Your task to perform on an android device: stop showing notifications on the lock screen Image 0: 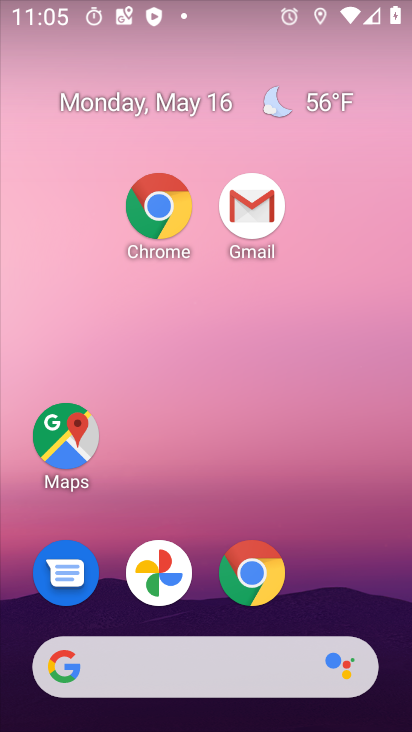
Step 0: click (176, 81)
Your task to perform on an android device: stop showing notifications on the lock screen Image 1: 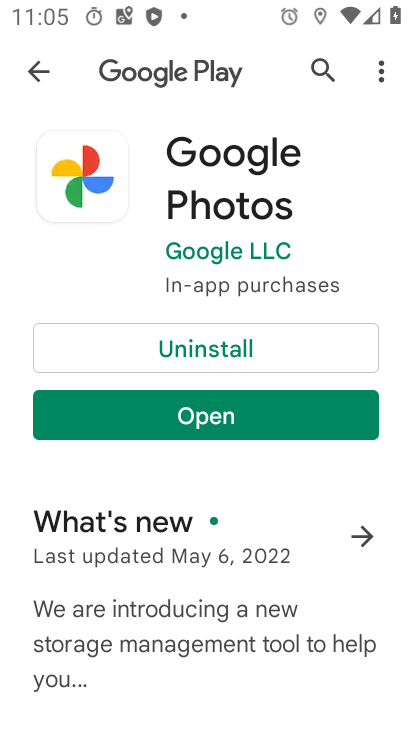
Step 1: drag from (323, 534) to (227, 156)
Your task to perform on an android device: stop showing notifications on the lock screen Image 2: 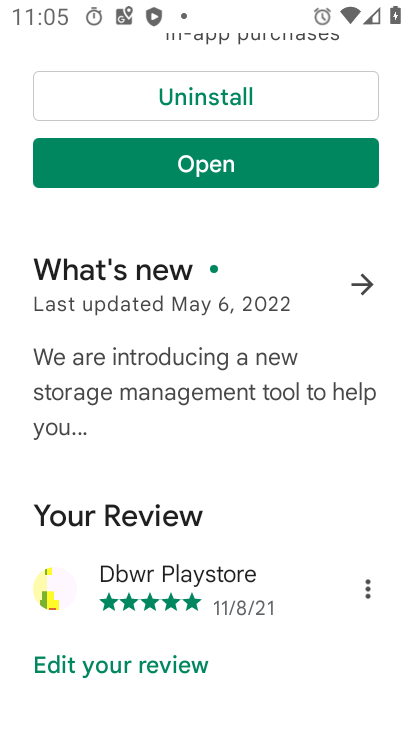
Step 2: press back button
Your task to perform on an android device: stop showing notifications on the lock screen Image 3: 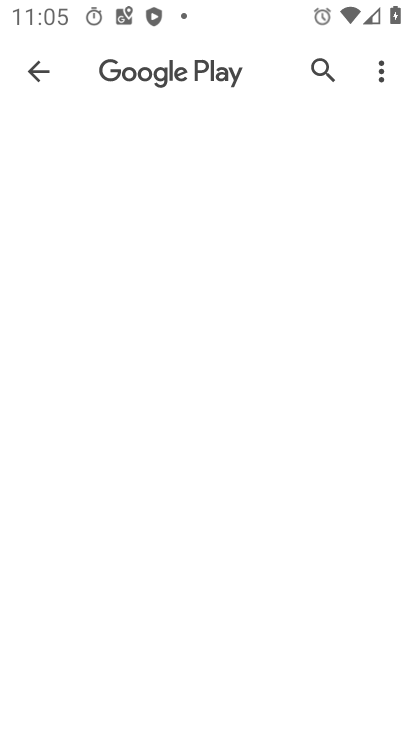
Step 3: press back button
Your task to perform on an android device: stop showing notifications on the lock screen Image 4: 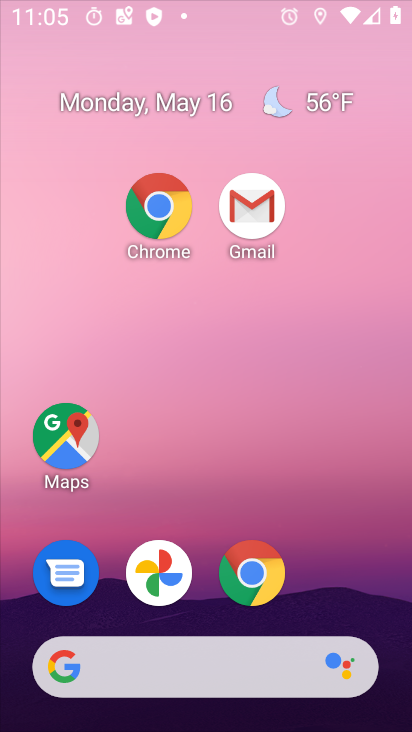
Step 4: press back button
Your task to perform on an android device: stop showing notifications on the lock screen Image 5: 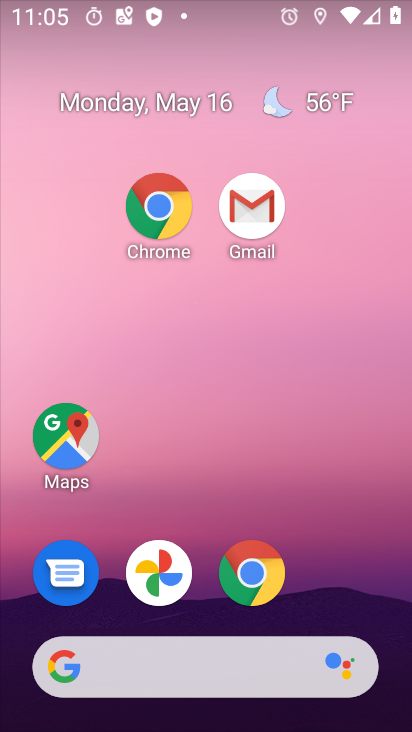
Step 5: drag from (327, 582) to (155, 143)
Your task to perform on an android device: stop showing notifications on the lock screen Image 6: 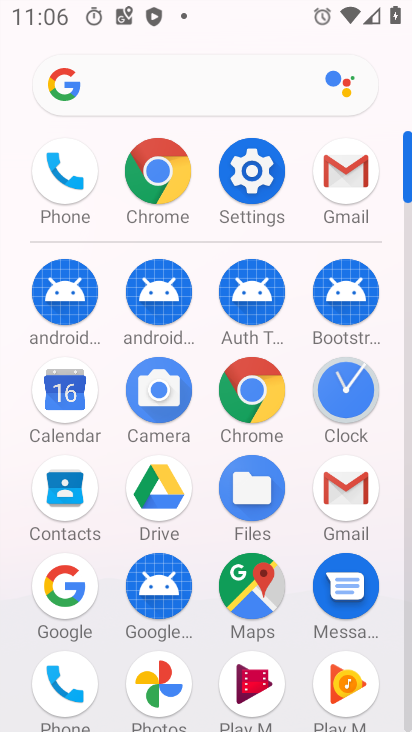
Step 6: click (254, 172)
Your task to perform on an android device: stop showing notifications on the lock screen Image 7: 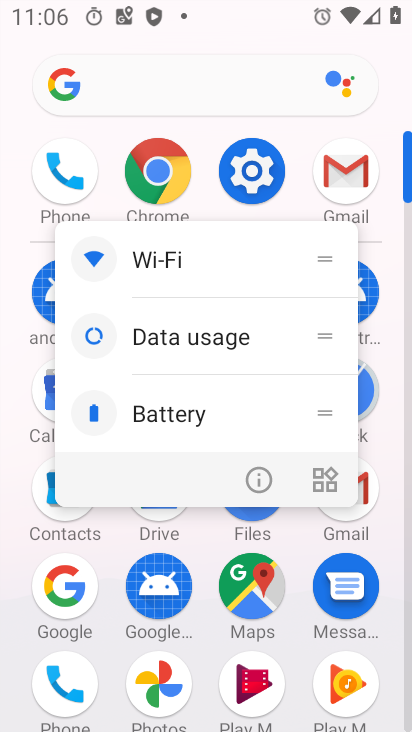
Step 7: click (259, 165)
Your task to perform on an android device: stop showing notifications on the lock screen Image 8: 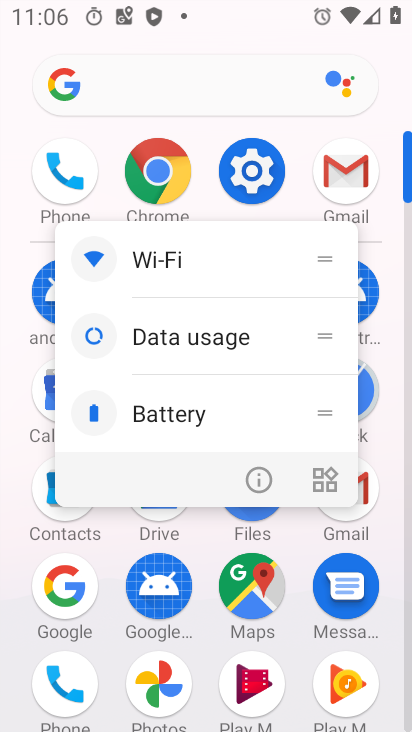
Step 8: click (248, 175)
Your task to perform on an android device: stop showing notifications on the lock screen Image 9: 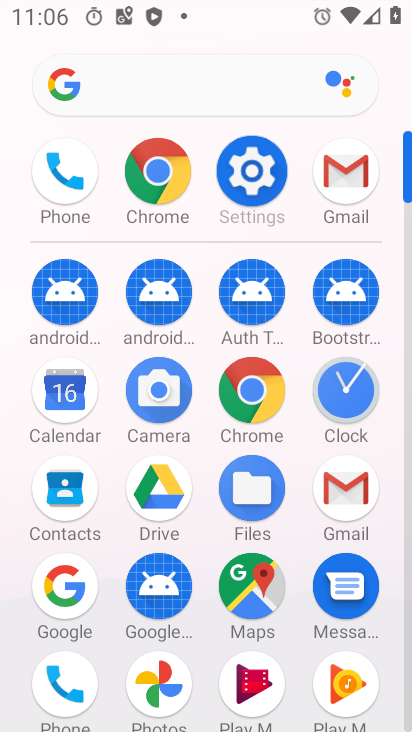
Step 9: click (249, 176)
Your task to perform on an android device: stop showing notifications on the lock screen Image 10: 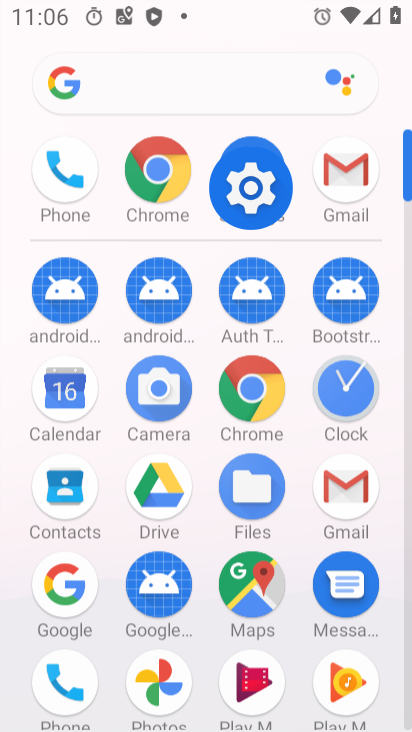
Step 10: click (249, 176)
Your task to perform on an android device: stop showing notifications on the lock screen Image 11: 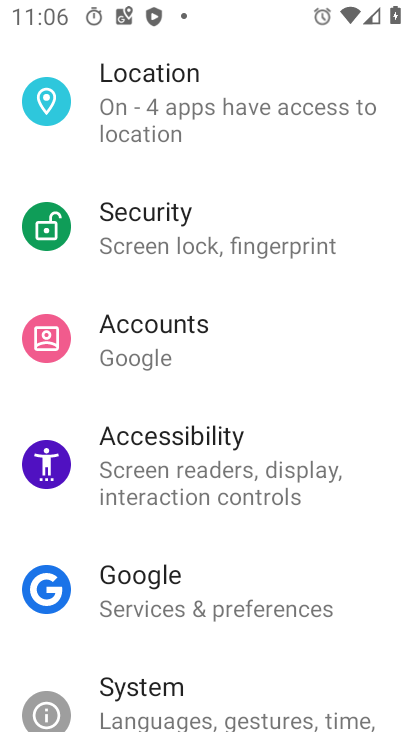
Step 11: drag from (150, 201) to (232, 463)
Your task to perform on an android device: stop showing notifications on the lock screen Image 12: 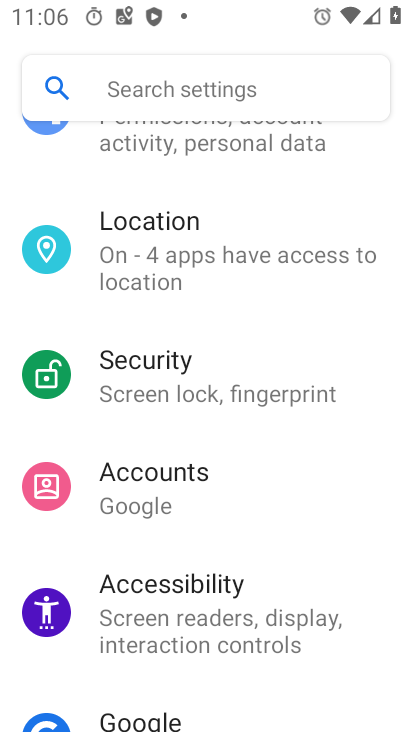
Step 12: drag from (173, 304) to (271, 729)
Your task to perform on an android device: stop showing notifications on the lock screen Image 13: 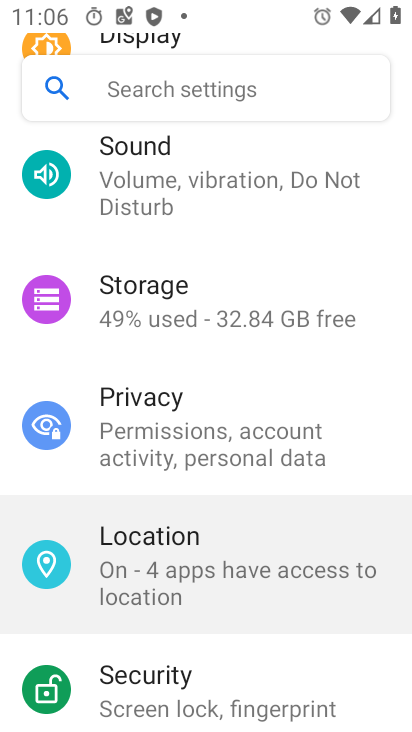
Step 13: drag from (182, 335) to (204, 708)
Your task to perform on an android device: stop showing notifications on the lock screen Image 14: 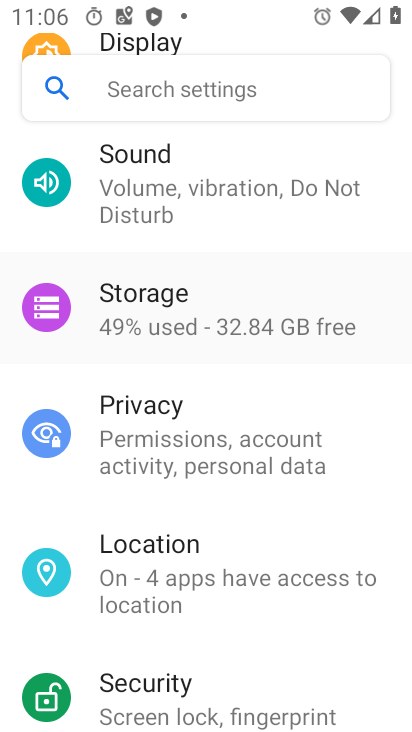
Step 14: drag from (167, 435) to (236, 706)
Your task to perform on an android device: stop showing notifications on the lock screen Image 15: 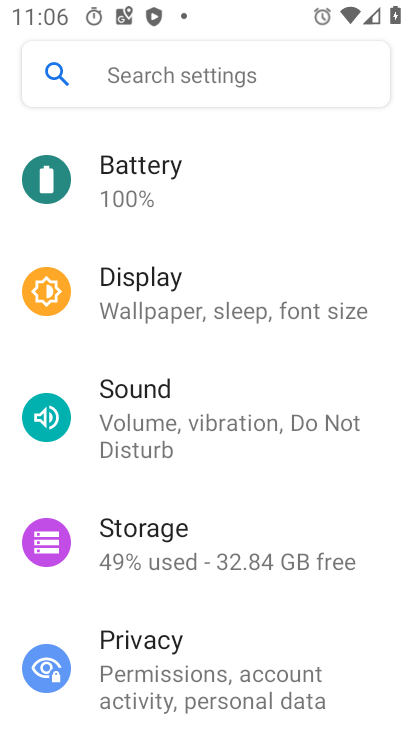
Step 15: drag from (172, 545) to (139, 142)
Your task to perform on an android device: stop showing notifications on the lock screen Image 16: 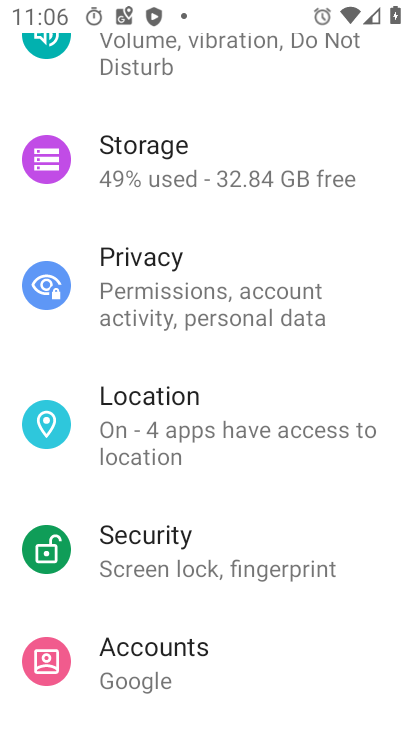
Step 16: drag from (224, 519) to (142, 12)
Your task to perform on an android device: stop showing notifications on the lock screen Image 17: 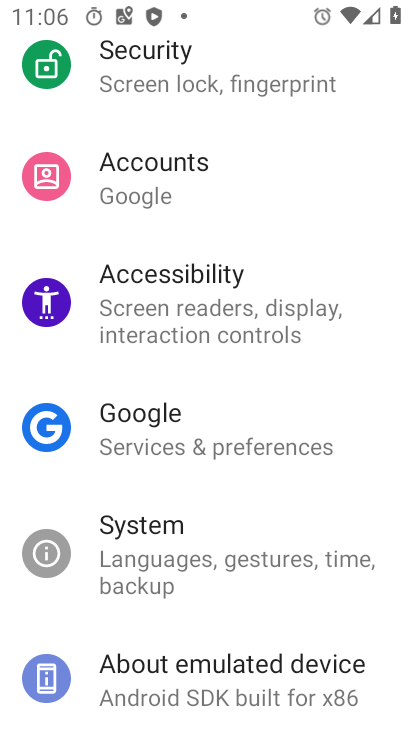
Step 17: drag from (175, 426) to (183, 26)
Your task to perform on an android device: stop showing notifications on the lock screen Image 18: 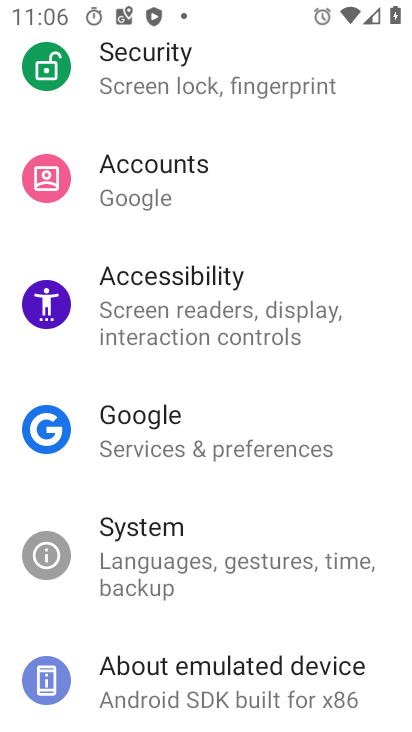
Step 18: drag from (148, 248) to (279, 691)
Your task to perform on an android device: stop showing notifications on the lock screen Image 19: 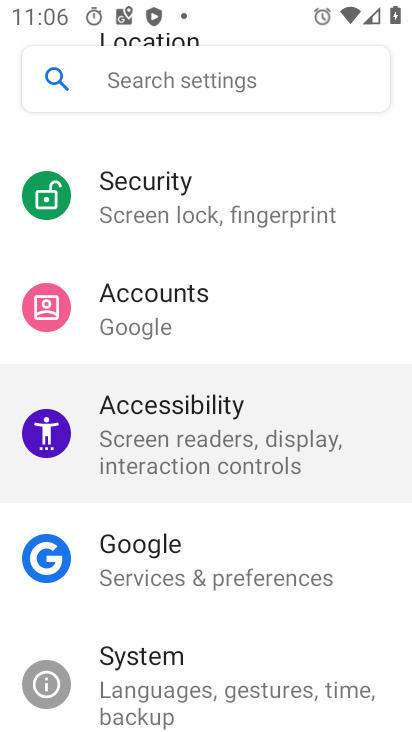
Step 19: drag from (116, 195) to (174, 442)
Your task to perform on an android device: stop showing notifications on the lock screen Image 20: 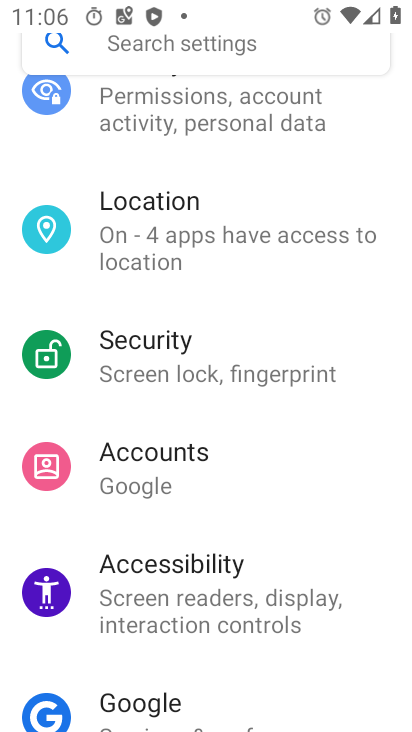
Step 20: drag from (154, 223) to (267, 663)
Your task to perform on an android device: stop showing notifications on the lock screen Image 21: 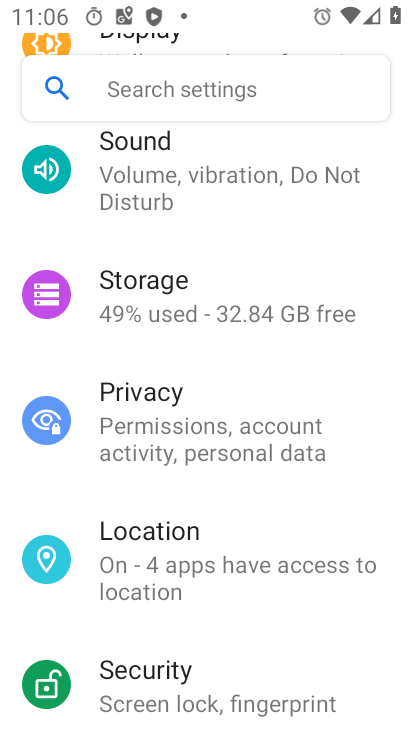
Step 21: drag from (135, 274) to (211, 517)
Your task to perform on an android device: stop showing notifications on the lock screen Image 22: 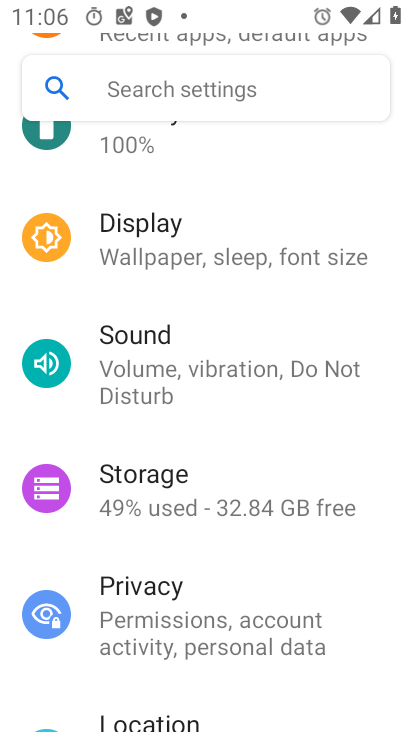
Step 22: drag from (145, 262) to (202, 589)
Your task to perform on an android device: stop showing notifications on the lock screen Image 23: 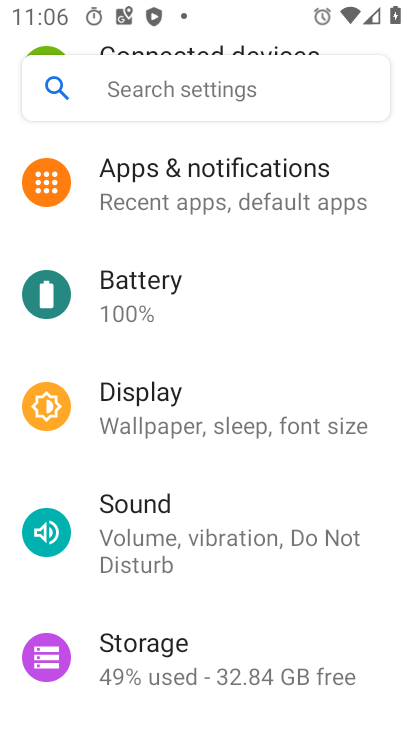
Step 23: click (237, 185)
Your task to perform on an android device: stop showing notifications on the lock screen Image 24: 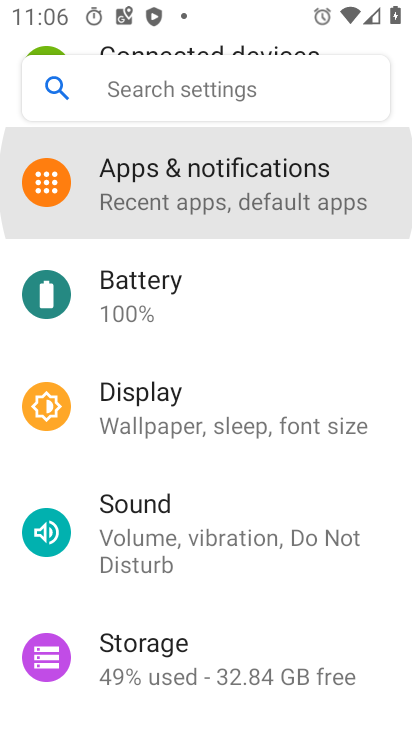
Step 24: click (237, 185)
Your task to perform on an android device: stop showing notifications on the lock screen Image 25: 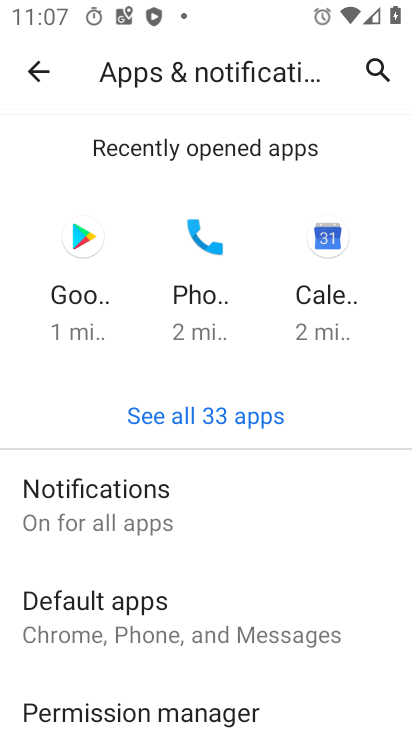
Step 25: click (111, 515)
Your task to perform on an android device: stop showing notifications on the lock screen Image 26: 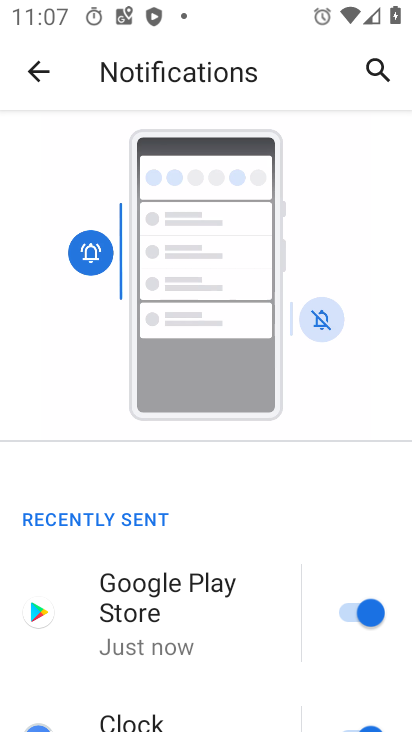
Step 26: click (39, 69)
Your task to perform on an android device: stop showing notifications on the lock screen Image 27: 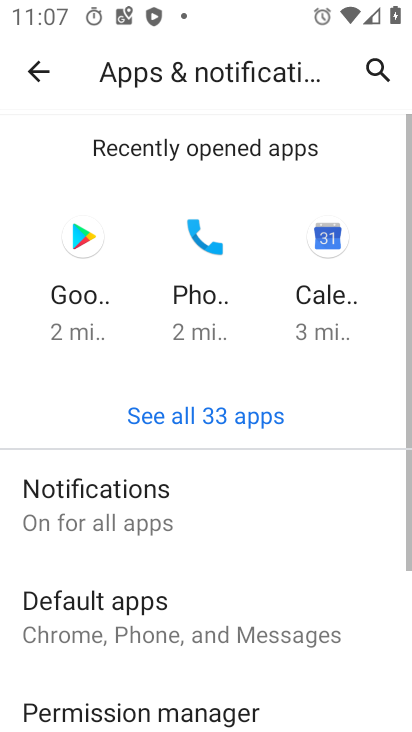
Step 27: click (126, 523)
Your task to perform on an android device: stop showing notifications on the lock screen Image 28: 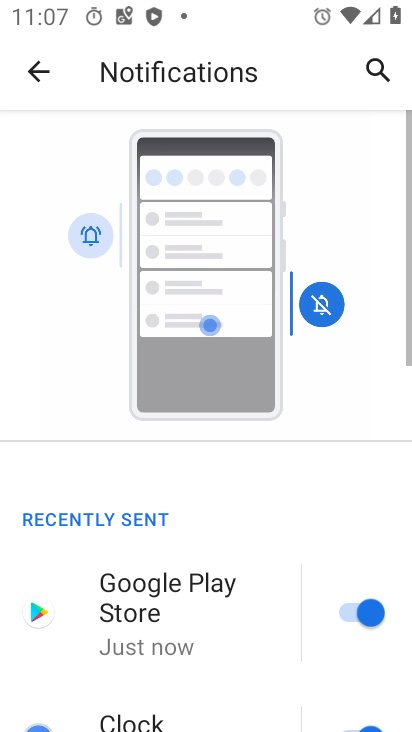
Step 28: drag from (171, 574) to (106, 5)
Your task to perform on an android device: stop showing notifications on the lock screen Image 29: 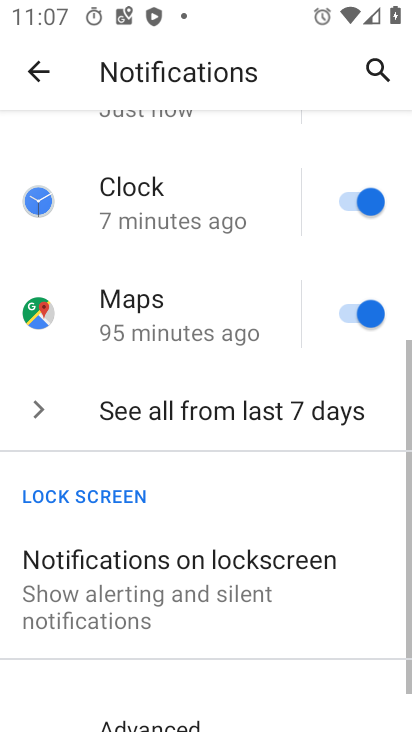
Step 29: drag from (184, 493) to (134, 106)
Your task to perform on an android device: stop showing notifications on the lock screen Image 30: 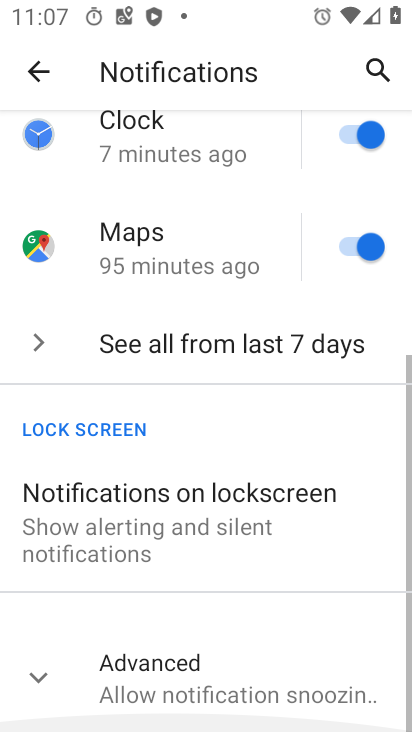
Step 30: click (150, 165)
Your task to perform on an android device: stop showing notifications on the lock screen Image 31: 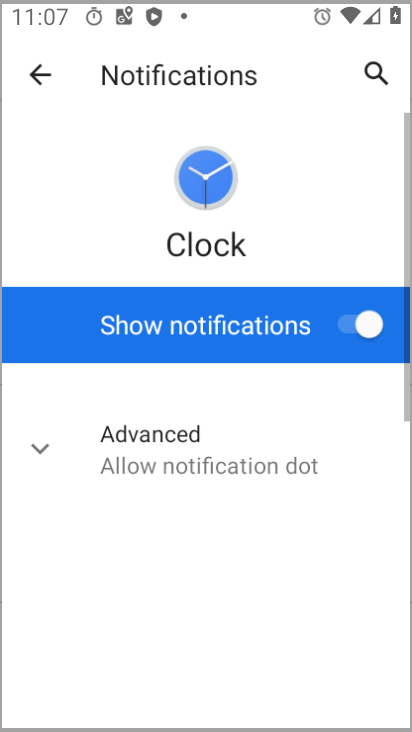
Step 31: click (121, 509)
Your task to perform on an android device: stop showing notifications on the lock screen Image 32: 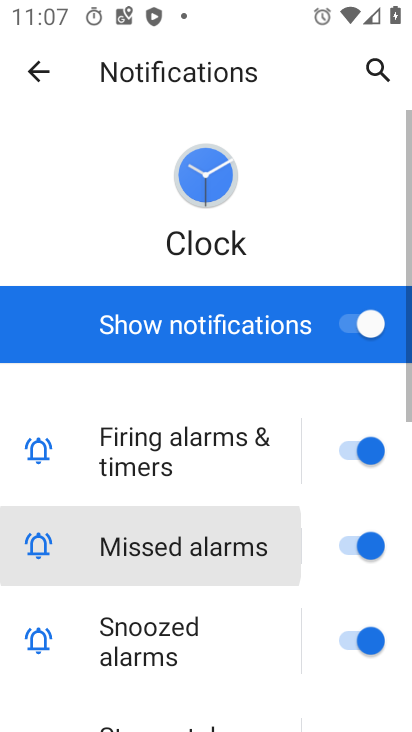
Step 32: click (120, 508)
Your task to perform on an android device: stop showing notifications on the lock screen Image 33: 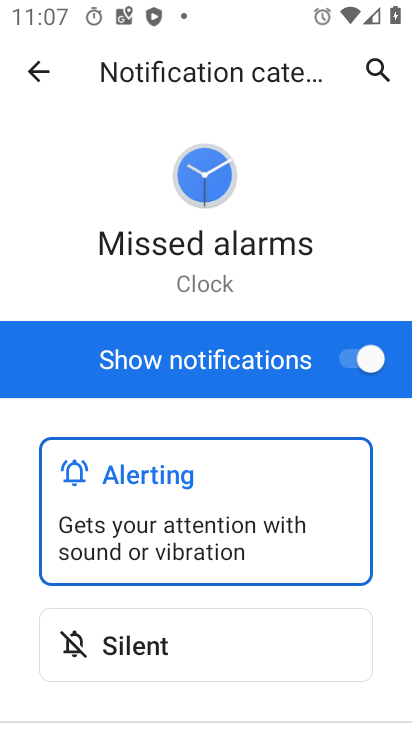
Step 33: click (38, 70)
Your task to perform on an android device: stop showing notifications on the lock screen Image 34: 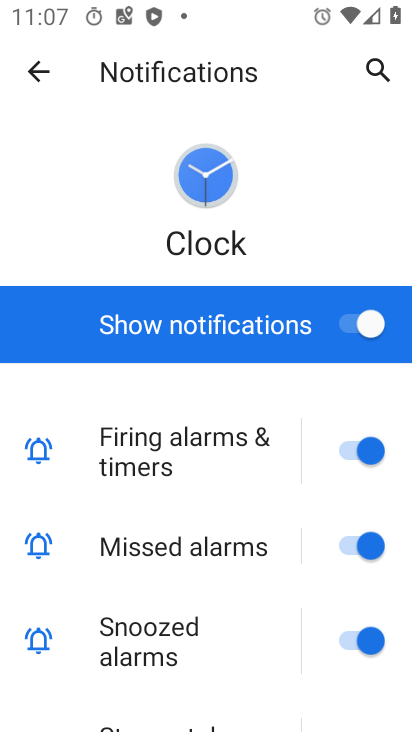
Step 34: click (374, 324)
Your task to perform on an android device: stop showing notifications on the lock screen Image 35: 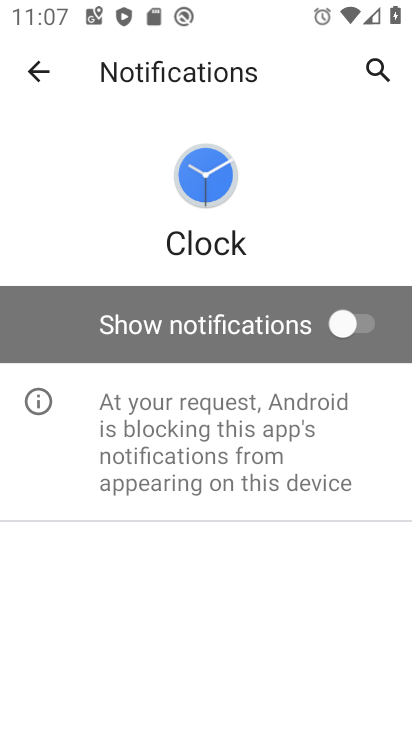
Step 35: click (343, 325)
Your task to perform on an android device: stop showing notifications on the lock screen Image 36: 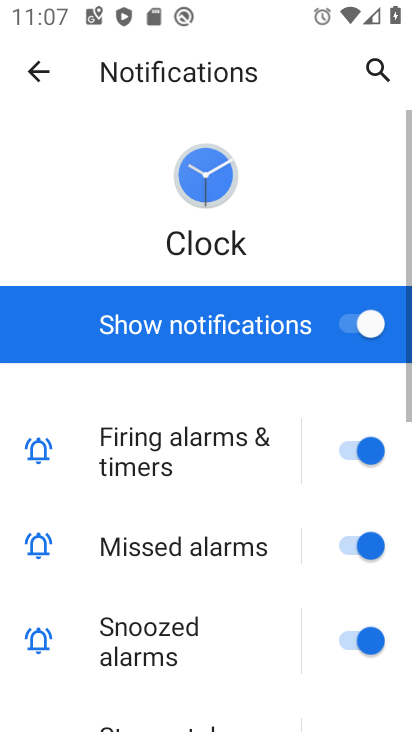
Step 36: click (28, 59)
Your task to perform on an android device: stop showing notifications on the lock screen Image 37: 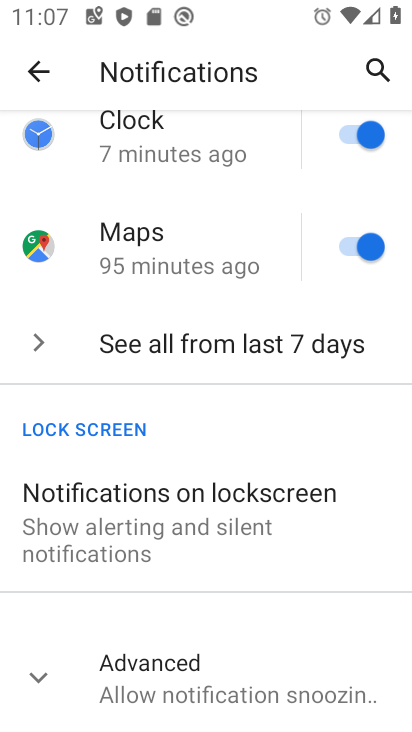
Step 37: drag from (181, 255) to (181, 216)
Your task to perform on an android device: stop showing notifications on the lock screen Image 38: 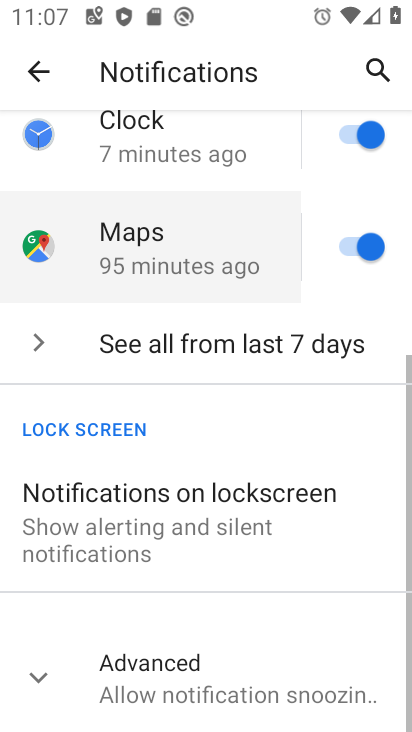
Step 38: drag from (181, 193) to (234, 428)
Your task to perform on an android device: stop showing notifications on the lock screen Image 39: 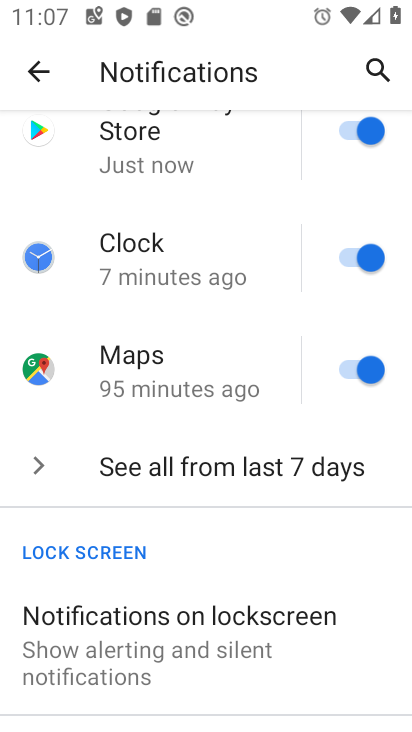
Step 39: drag from (159, 219) to (200, 509)
Your task to perform on an android device: stop showing notifications on the lock screen Image 40: 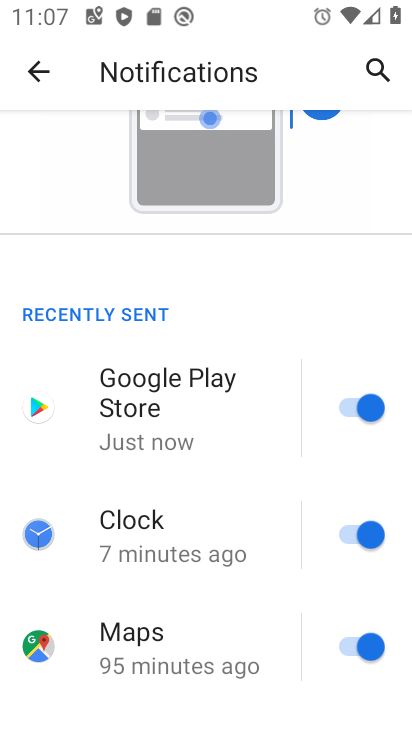
Step 40: drag from (209, 503) to (177, 107)
Your task to perform on an android device: stop showing notifications on the lock screen Image 41: 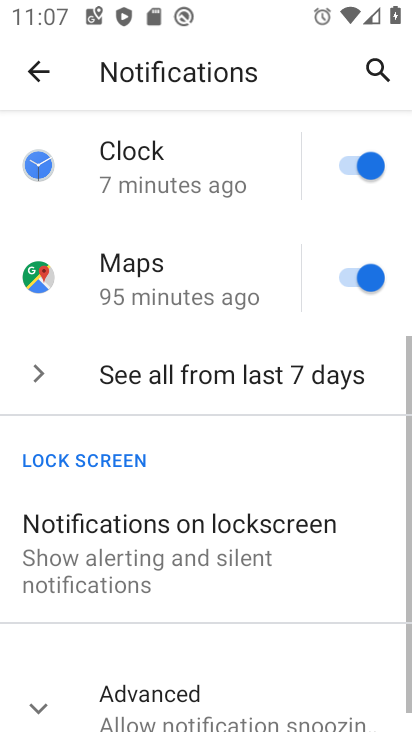
Step 41: drag from (173, 418) to (146, 51)
Your task to perform on an android device: stop showing notifications on the lock screen Image 42: 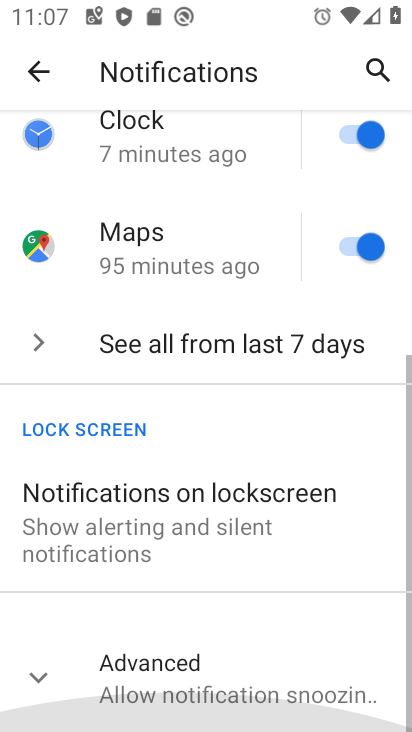
Step 42: drag from (172, 431) to (190, 155)
Your task to perform on an android device: stop showing notifications on the lock screen Image 43: 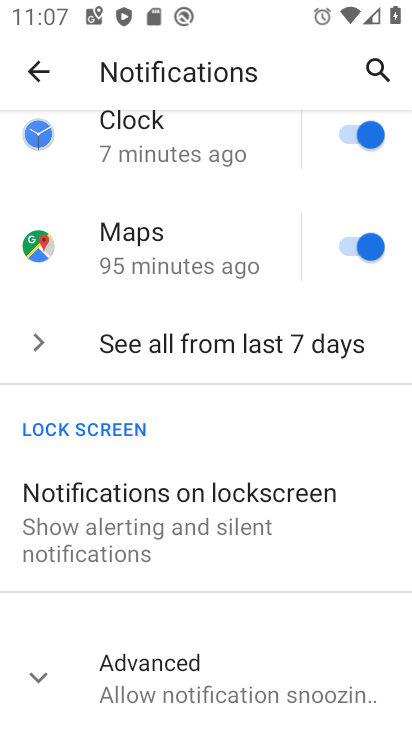
Step 43: click (170, 504)
Your task to perform on an android device: stop showing notifications on the lock screen Image 44: 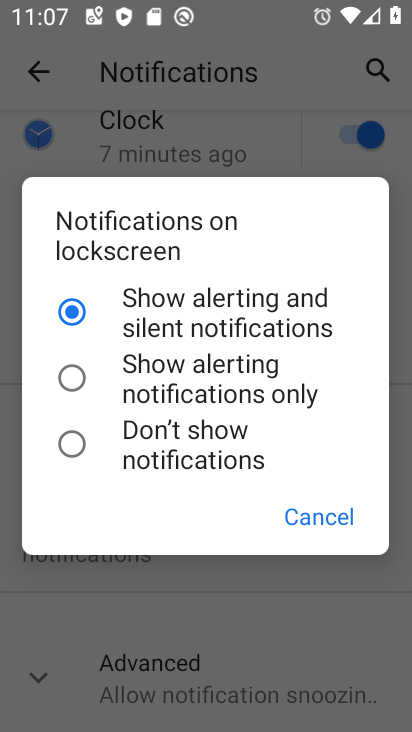
Step 44: click (76, 383)
Your task to perform on an android device: stop showing notifications on the lock screen Image 45: 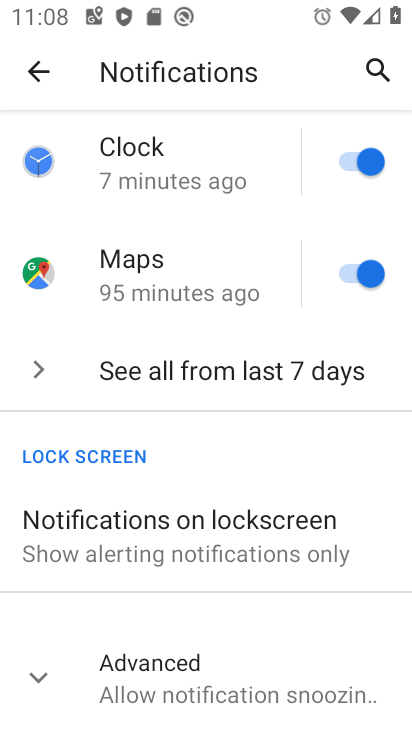
Step 45: task complete